Your task to perform on an android device: Open Chrome and go to settings Image 0: 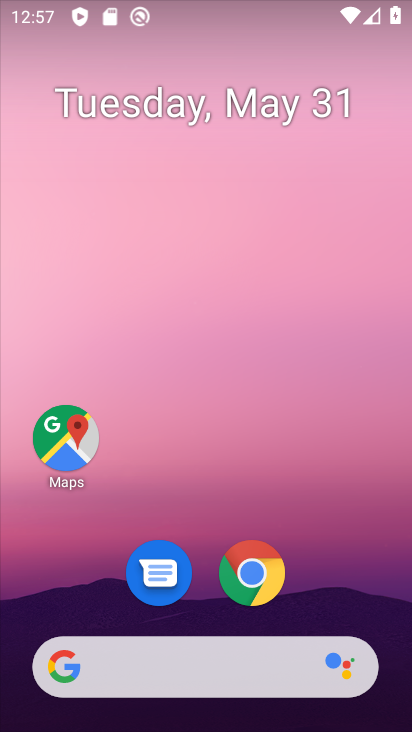
Step 0: drag from (359, 574) to (363, 175)
Your task to perform on an android device: Open Chrome and go to settings Image 1: 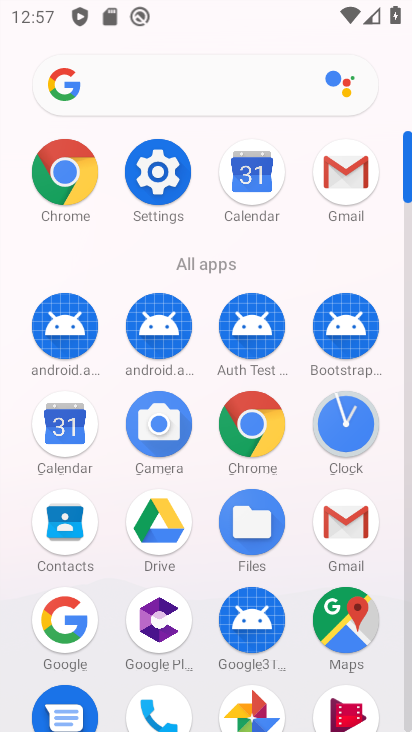
Step 1: click (248, 438)
Your task to perform on an android device: Open Chrome and go to settings Image 2: 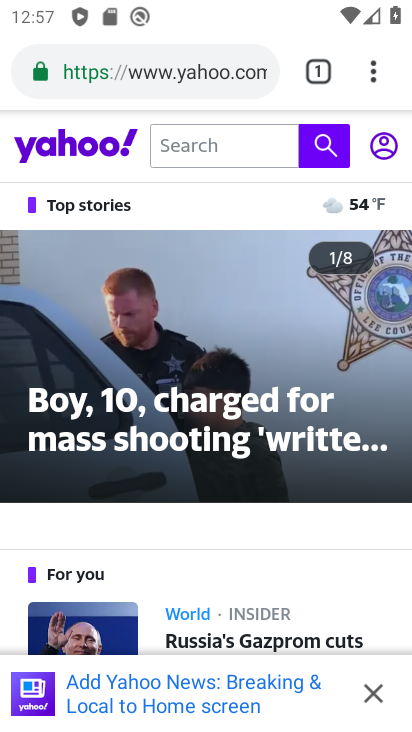
Step 2: click (370, 78)
Your task to perform on an android device: Open Chrome and go to settings Image 3: 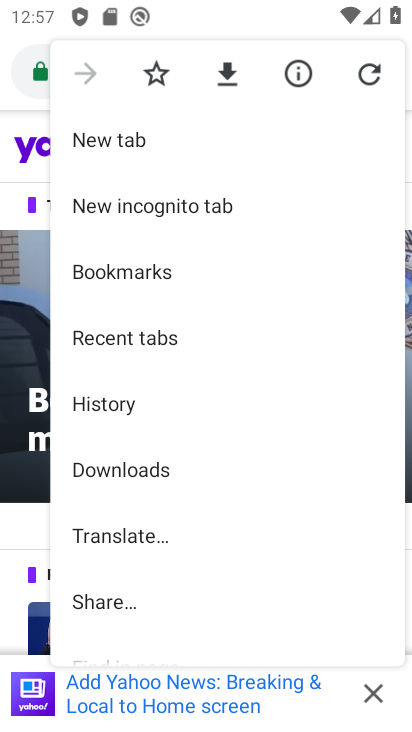
Step 3: drag from (291, 558) to (287, 426)
Your task to perform on an android device: Open Chrome and go to settings Image 4: 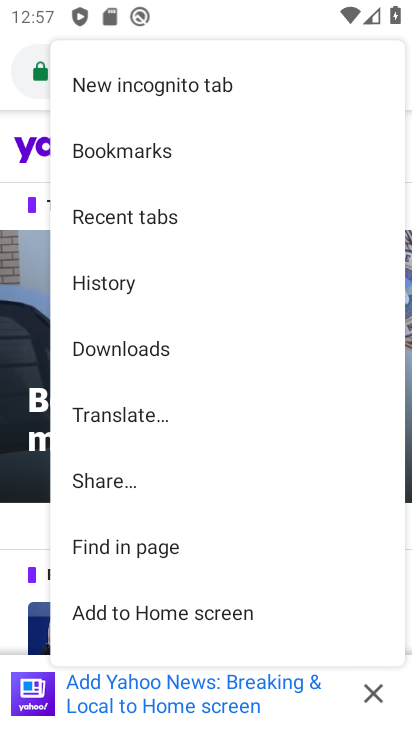
Step 4: drag from (295, 524) to (297, 424)
Your task to perform on an android device: Open Chrome and go to settings Image 5: 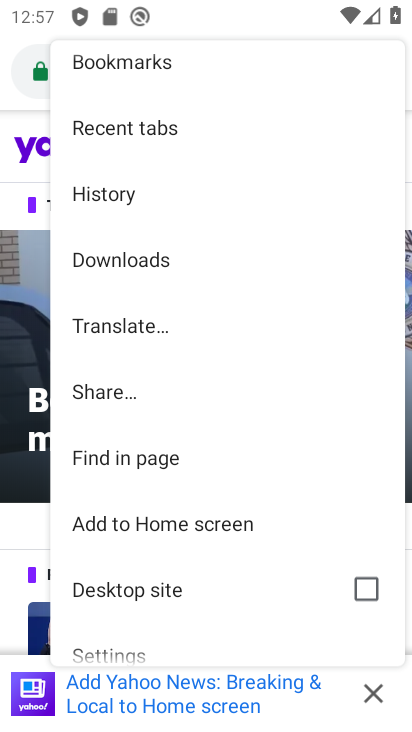
Step 5: drag from (284, 544) to (279, 417)
Your task to perform on an android device: Open Chrome and go to settings Image 6: 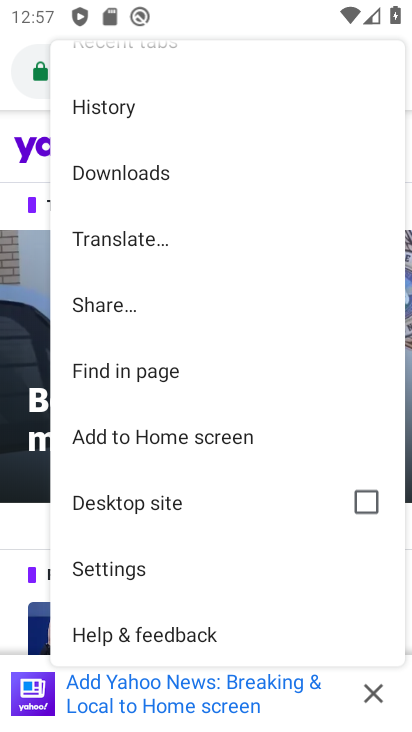
Step 6: click (145, 570)
Your task to perform on an android device: Open Chrome and go to settings Image 7: 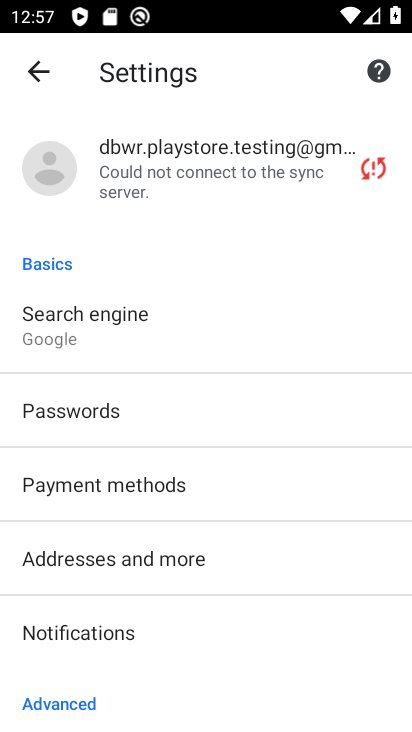
Step 7: task complete